Your task to perform on an android device: open a new tab in the chrome app Image 0: 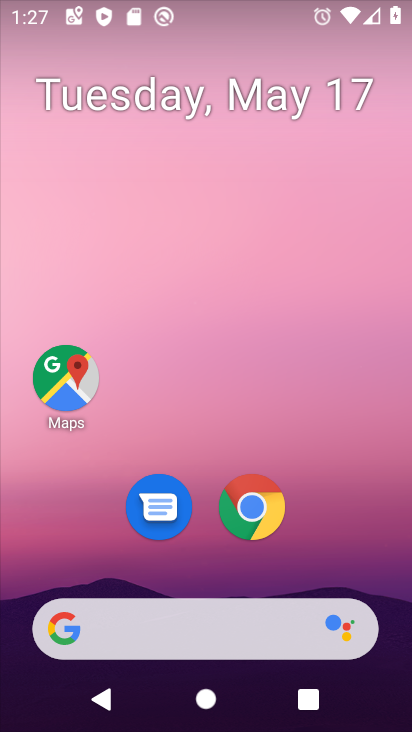
Step 0: drag from (322, 550) to (319, 234)
Your task to perform on an android device: open a new tab in the chrome app Image 1: 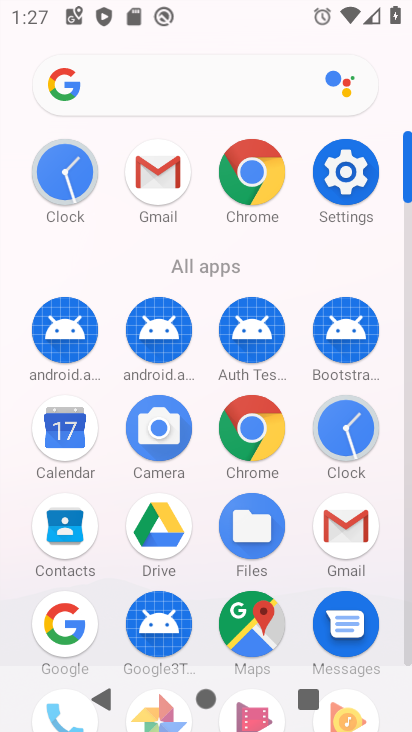
Step 1: click (242, 139)
Your task to perform on an android device: open a new tab in the chrome app Image 2: 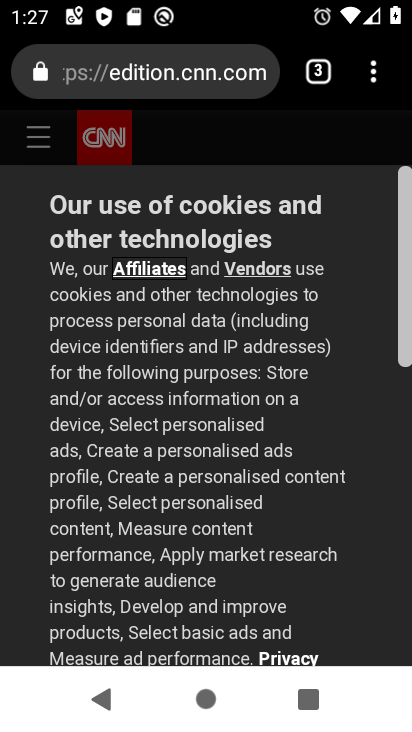
Step 2: click (371, 69)
Your task to perform on an android device: open a new tab in the chrome app Image 3: 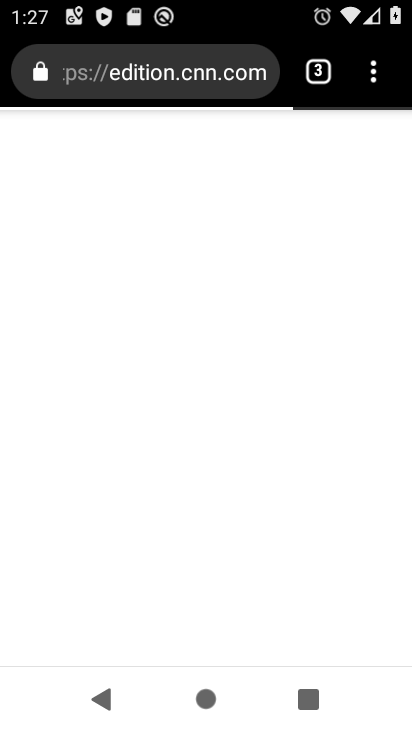
Step 3: click (363, 74)
Your task to perform on an android device: open a new tab in the chrome app Image 4: 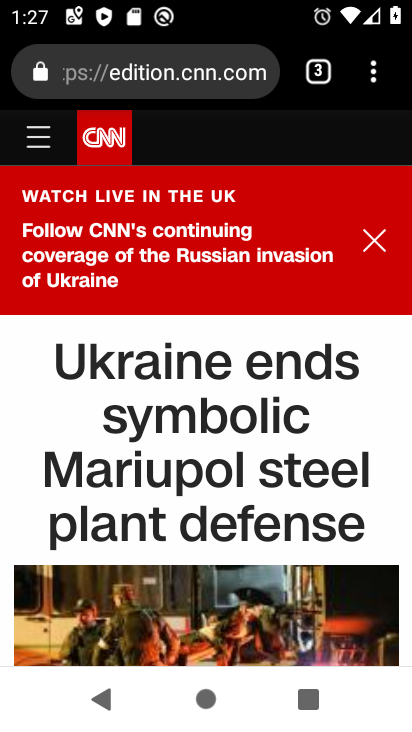
Step 4: click (363, 74)
Your task to perform on an android device: open a new tab in the chrome app Image 5: 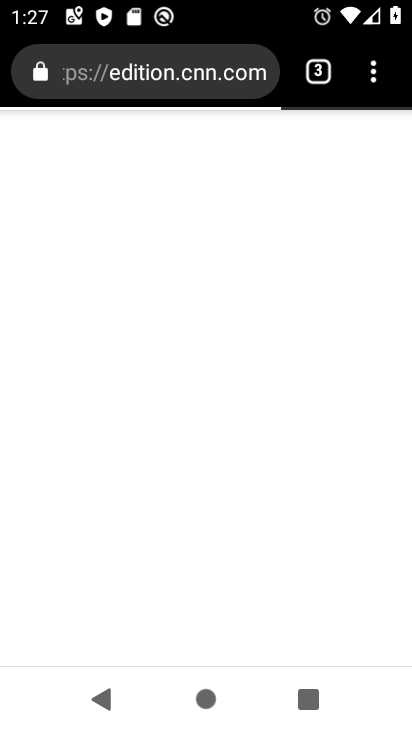
Step 5: click (362, 74)
Your task to perform on an android device: open a new tab in the chrome app Image 6: 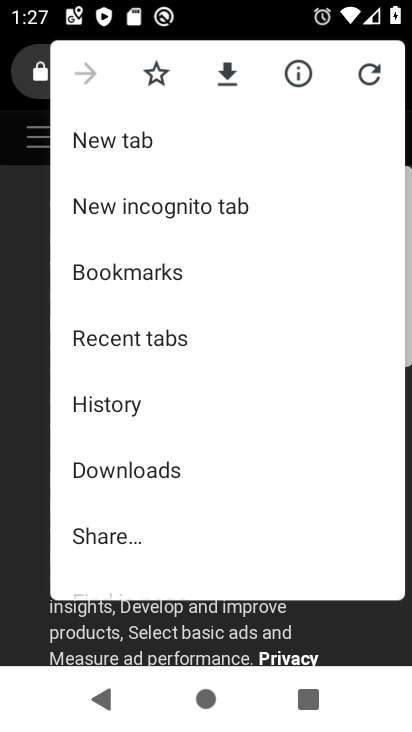
Step 6: click (194, 137)
Your task to perform on an android device: open a new tab in the chrome app Image 7: 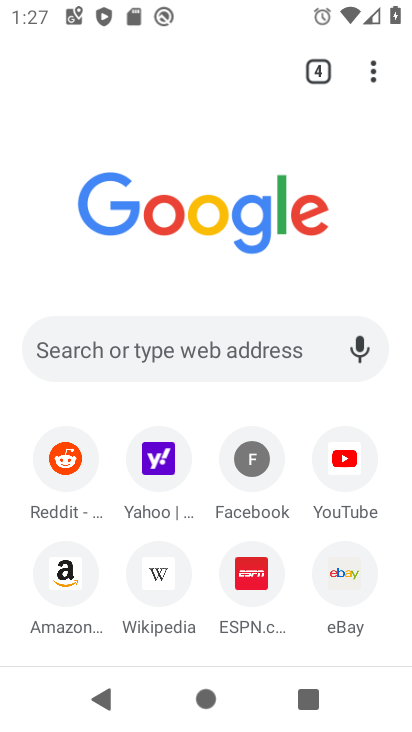
Step 7: task complete